Your task to perform on an android device: Open Chrome and go to the settings page Image 0: 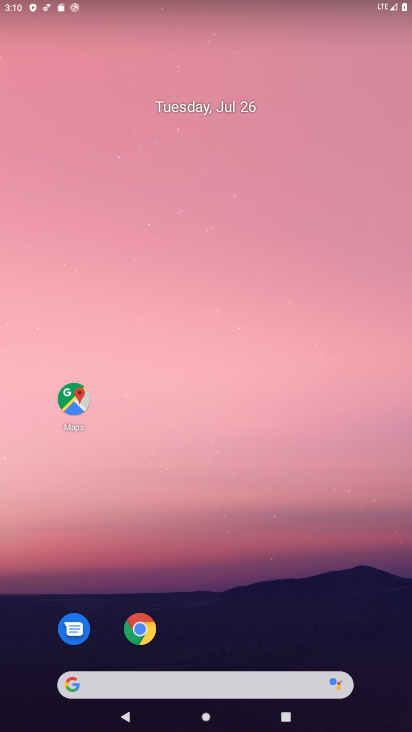
Step 0: click (137, 624)
Your task to perform on an android device: Open Chrome and go to the settings page Image 1: 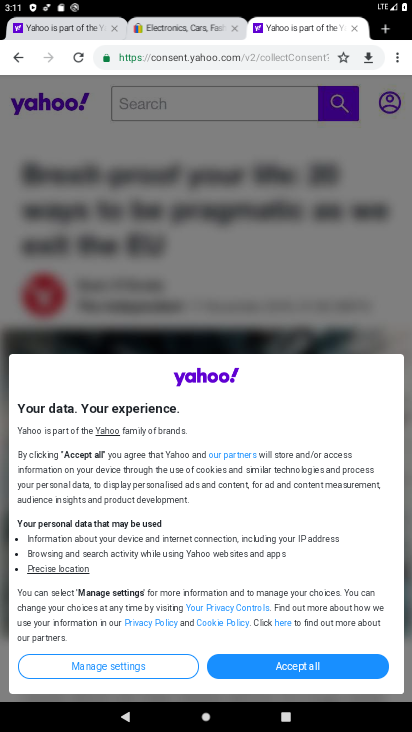
Step 1: click (398, 55)
Your task to perform on an android device: Open Chrome and go to the settings page Image 2: 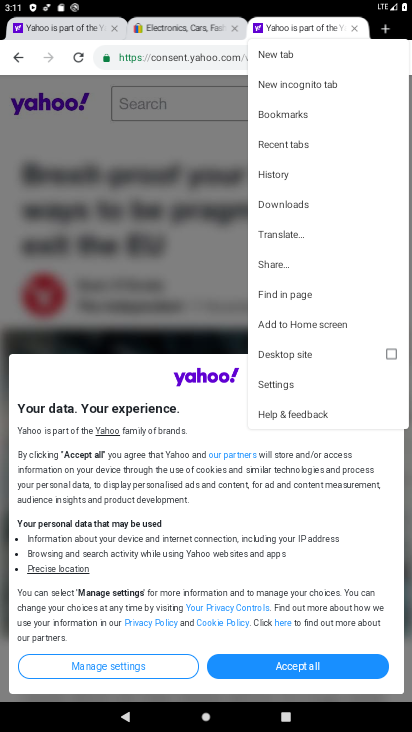
Step 2: click (277, 379)
Your task to perform on an android device: Open Chrome and go to the settings page Image 3: 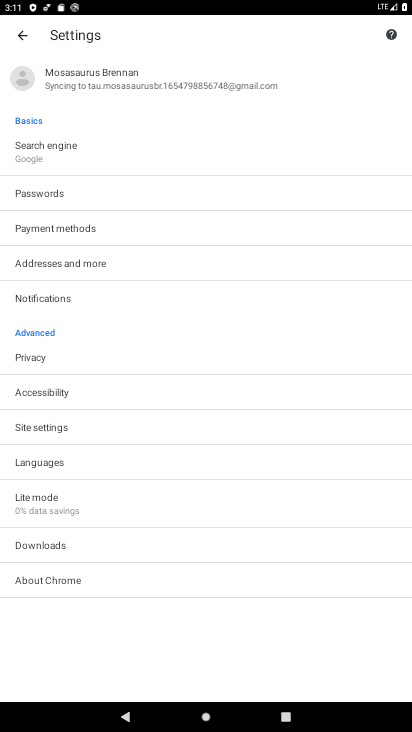
Step 3: task complete